Your task to perform on an android device: Is it going to rain today? Image 0: 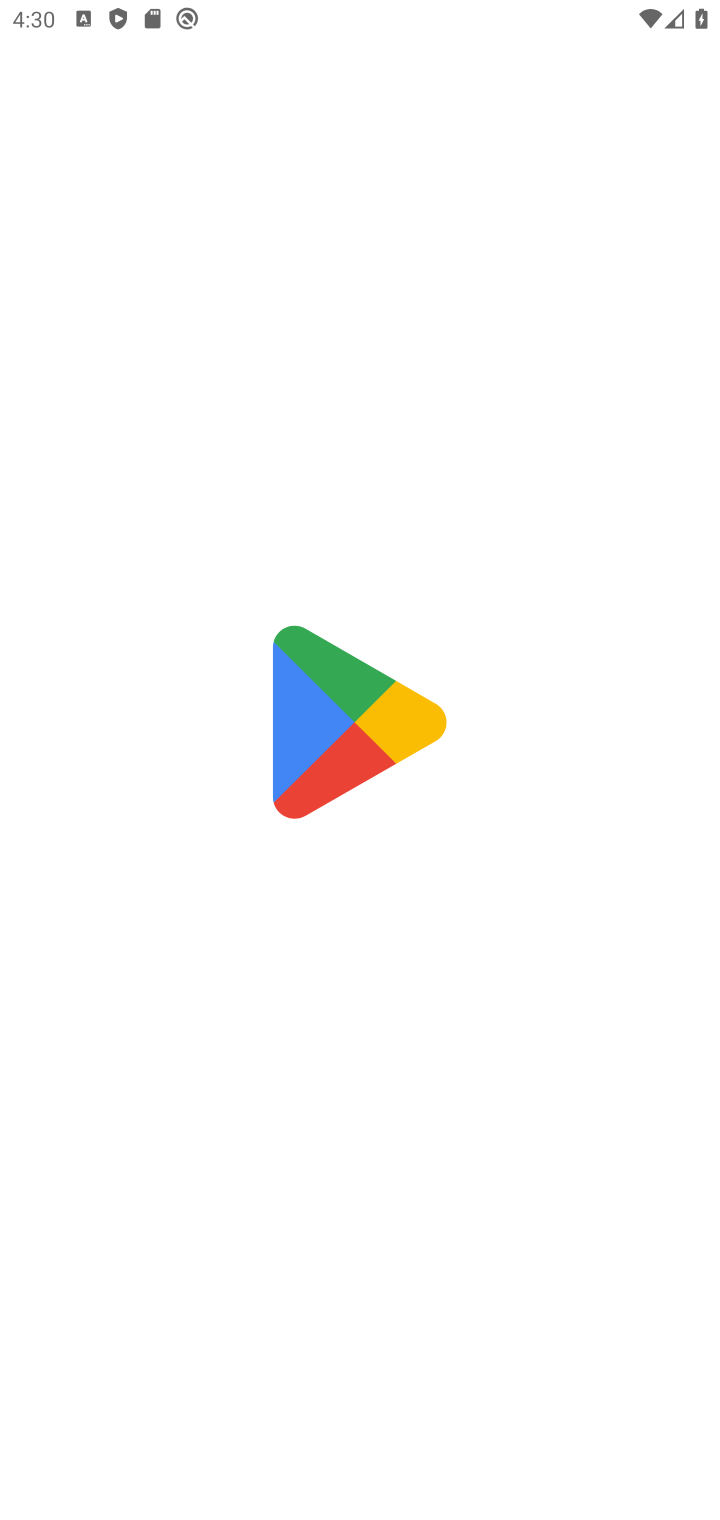
Step 0: press home button
Your task to perform on an android device: Is it going to rain today? Image 1: 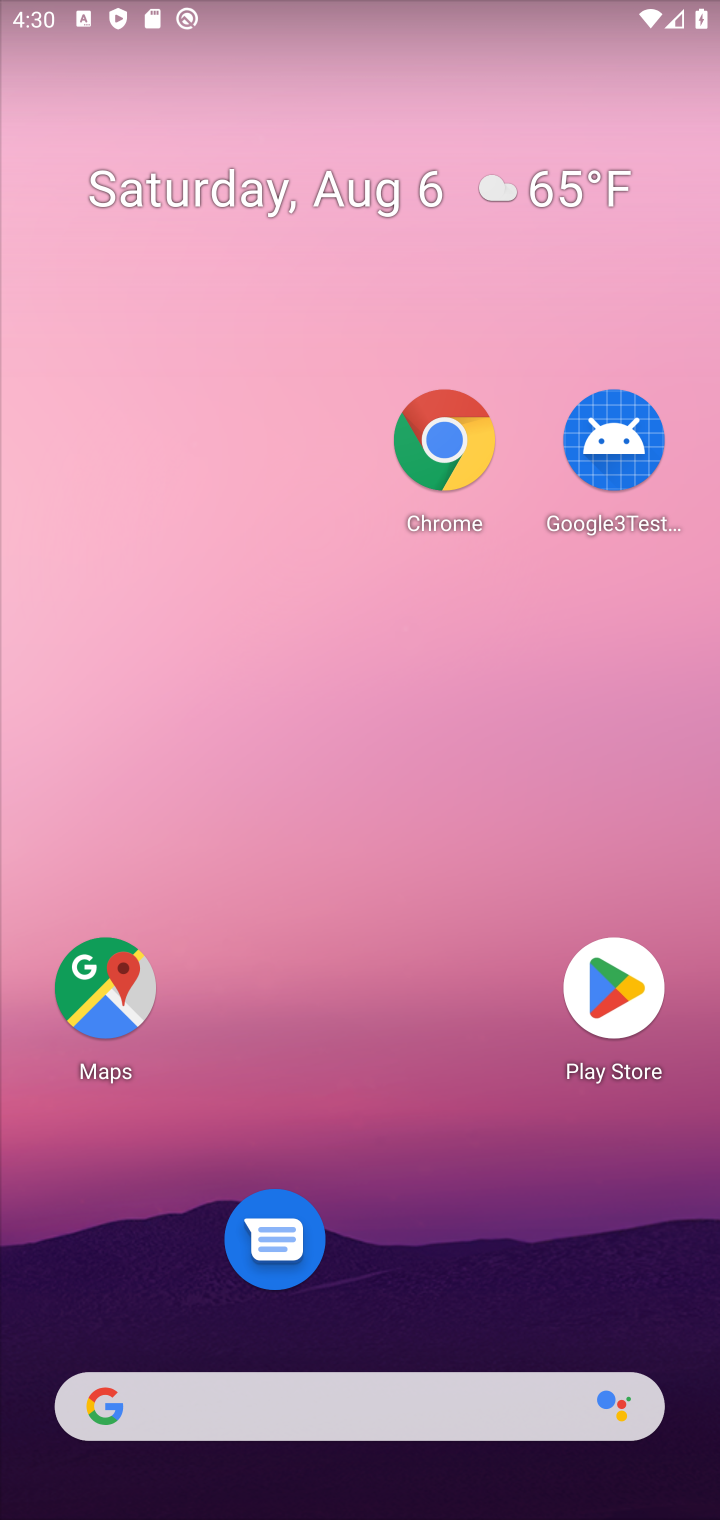
Step 1: drag from (444, 1416) to (442, 189)
Your task to perform on an android device: Is it going to rain today? Image 2: 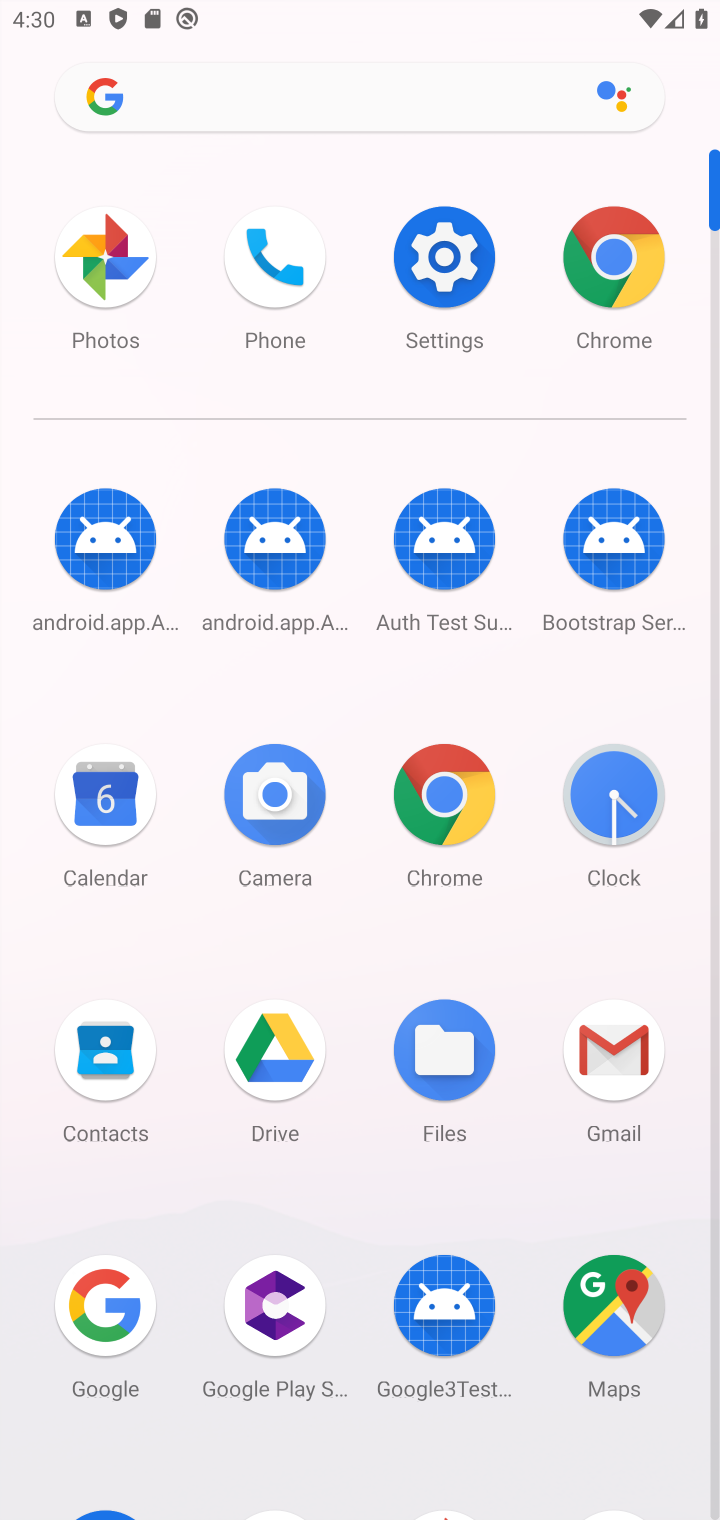
Step 2: click (108, 1295)
Your task to perform on an android device: Is it going to rain today? Image 3: 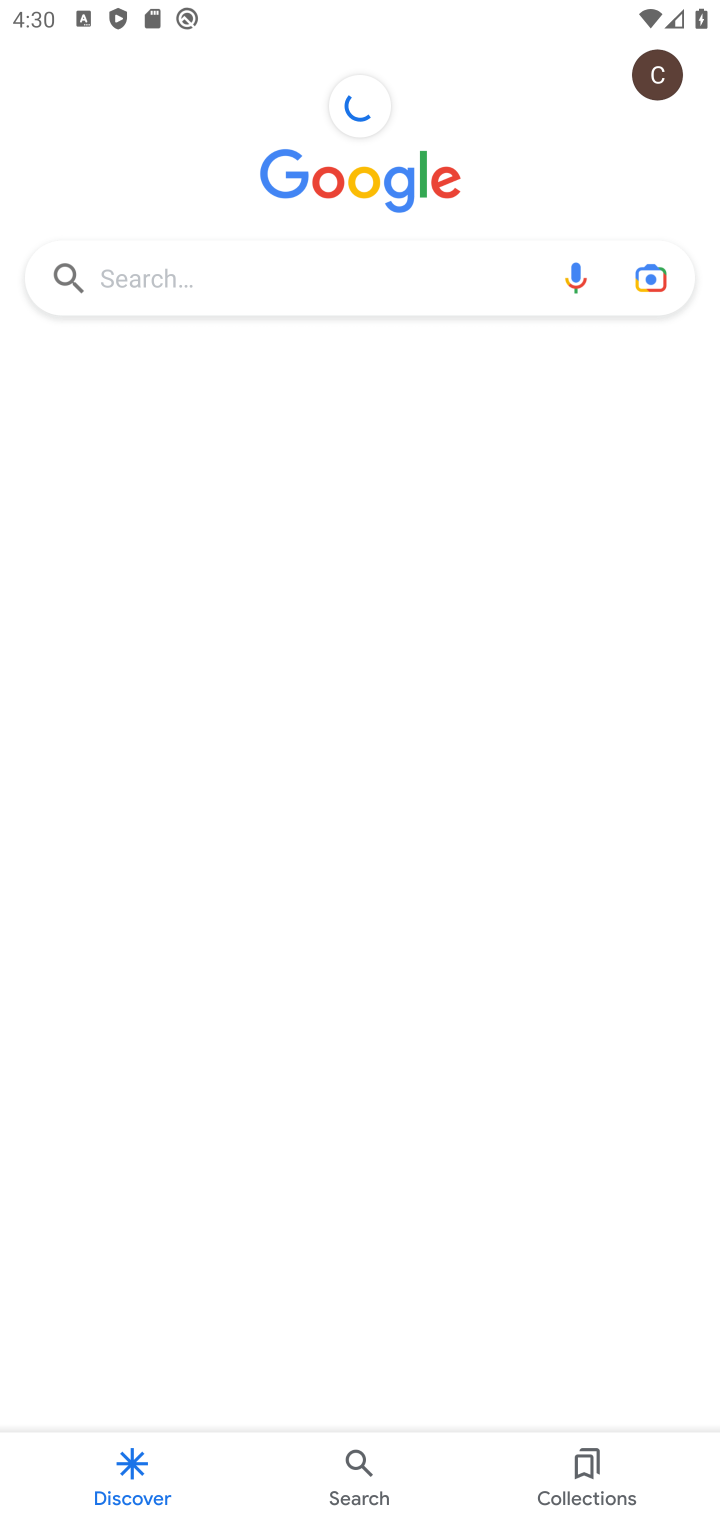
Step 3: click (335, 288)
Your task to perform on an android device: Is it going to rain today? Image 4: 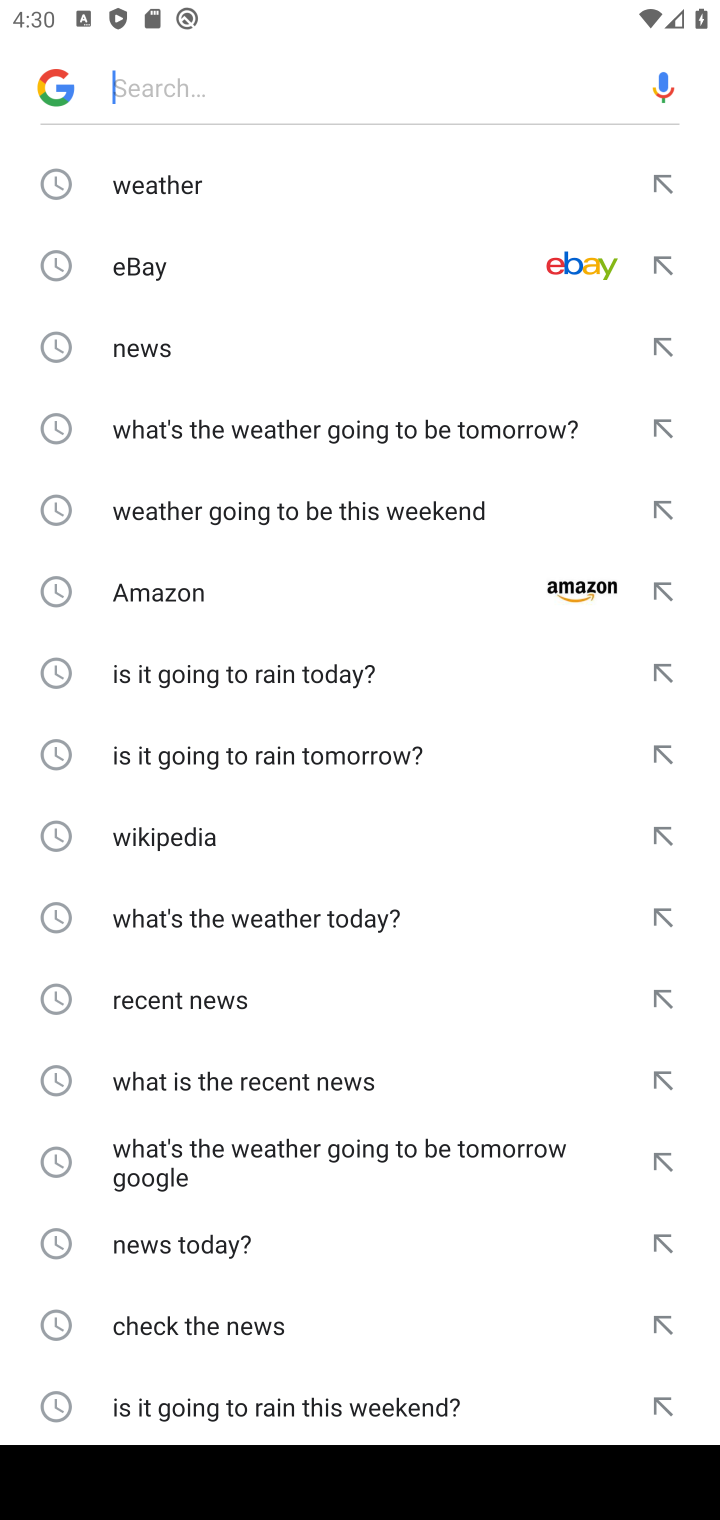
Step 4: type "is it going to rain today"
Your task to perform on an android device: Is it going to rain today? Image 5: 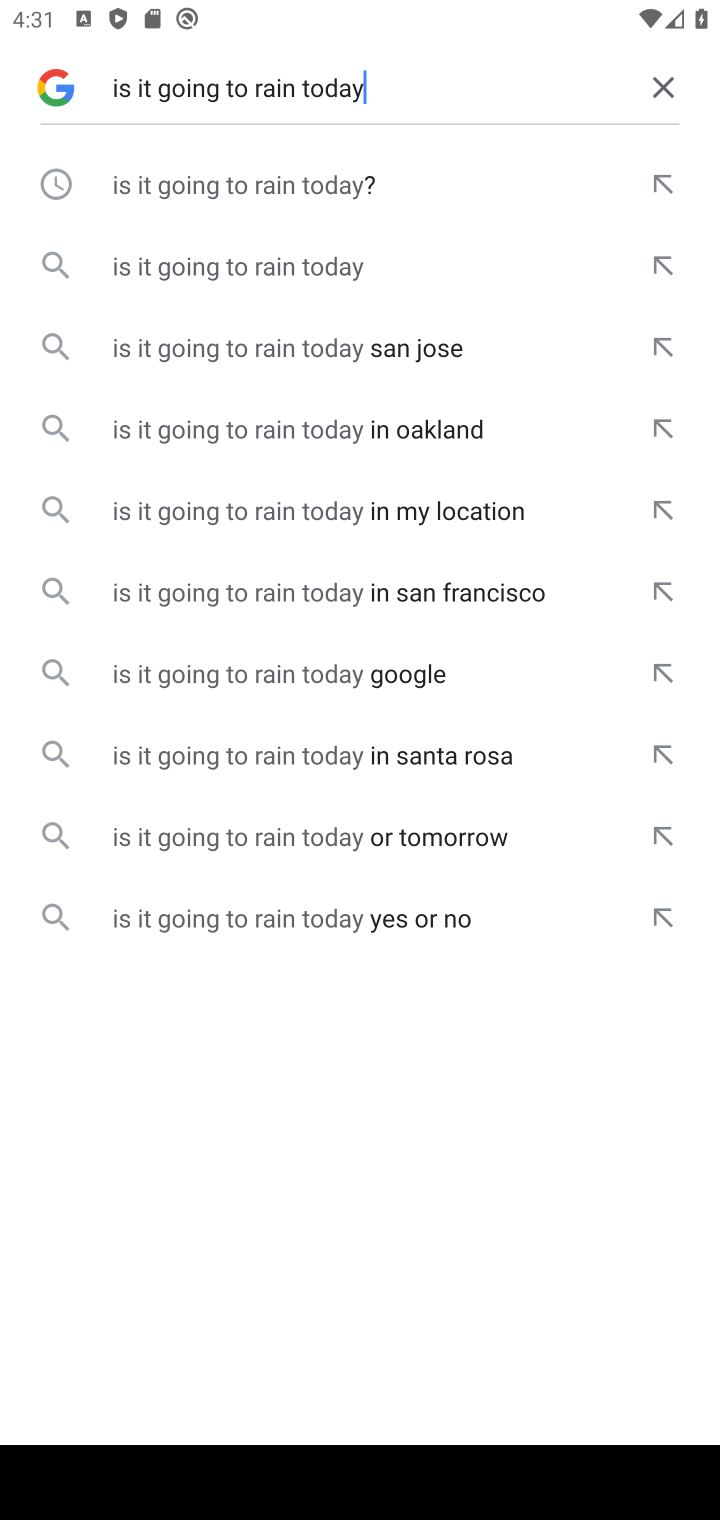
Step 5: click (388, 173)
Your task to perform on an android device: Is it going to rain today? Image 6: 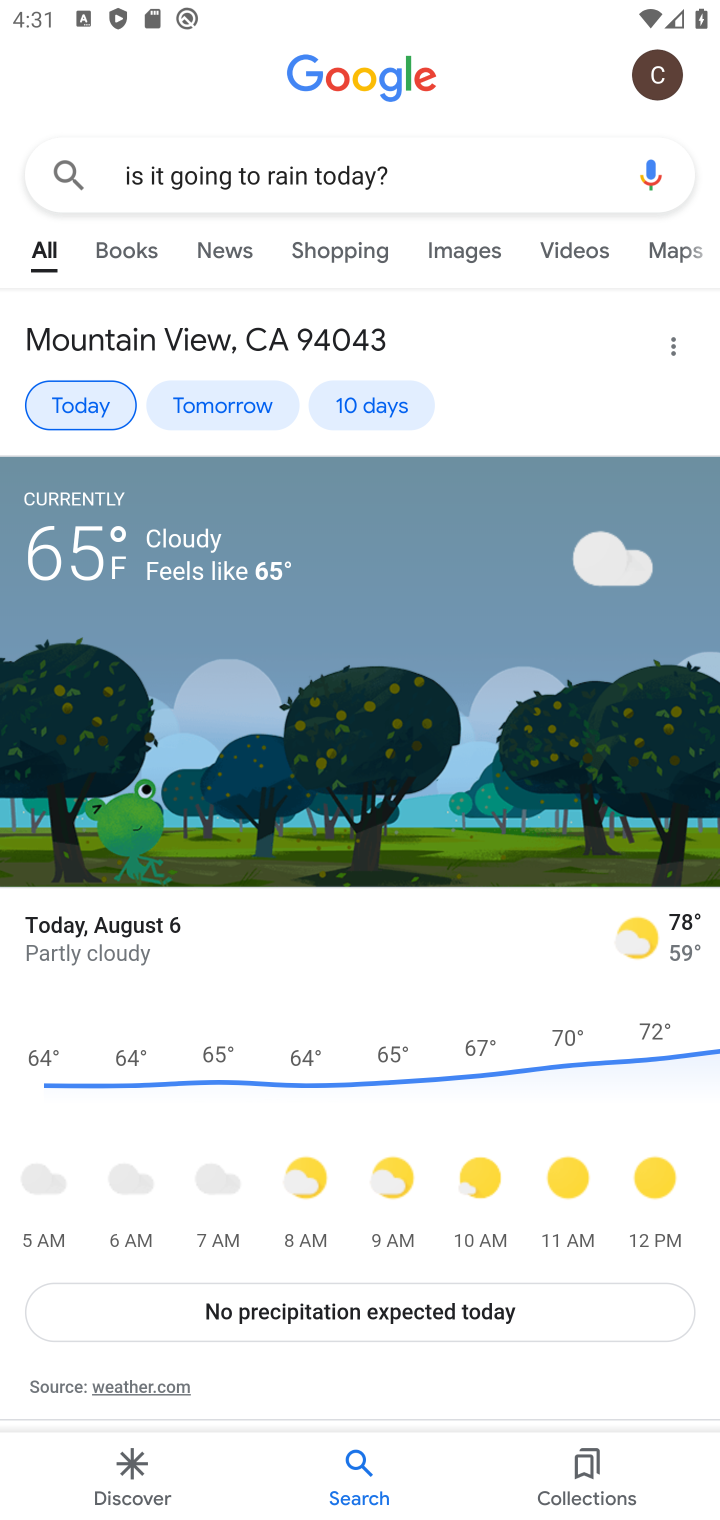
Step 6: task complete